Your task to perform on an android device: Open Wikipedia Image 0: 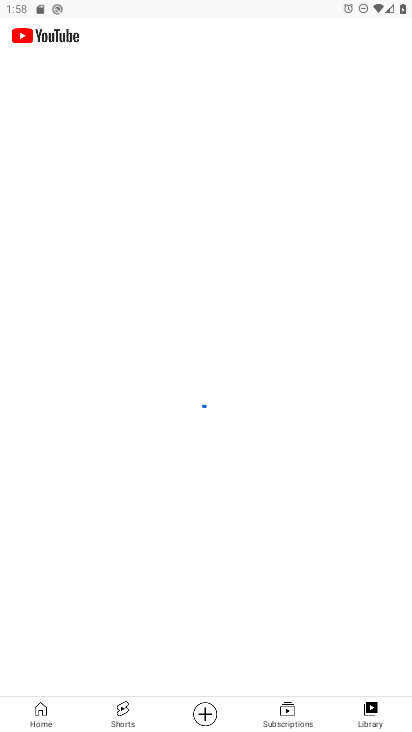
Step 0: click (309, 252)
Your task to perform on an android device: Open Wikipedia Image 1: 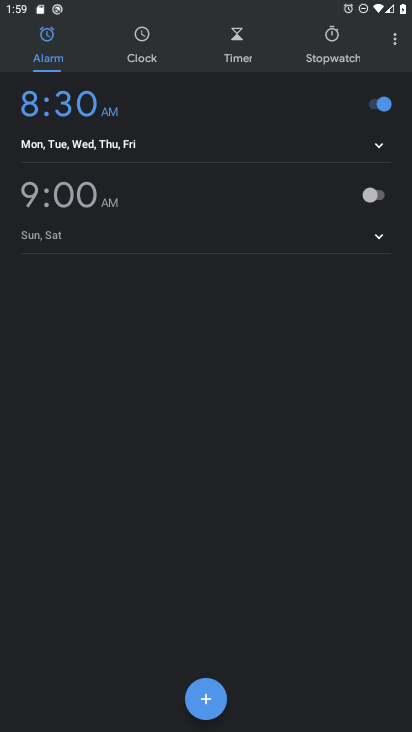
Step 1: press home button
Your task to perform on an android device: Open Wikipedia Image 2: 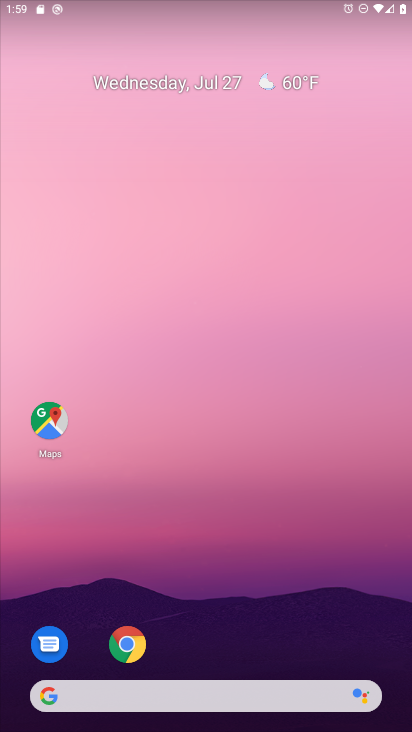
Step 2: drag from (203, 650) to (224, 236)
Your task to perform on an android device: Open Wikipedia Image 3: 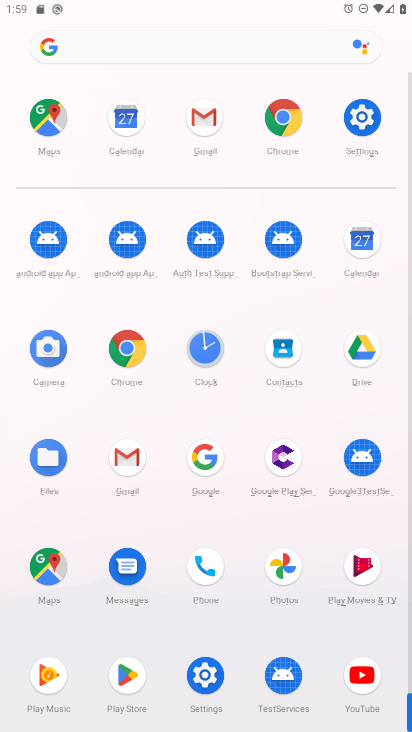
Step 3: click (174, 44)
Your task to perform on an android device: Open Wikipedia Image 4: 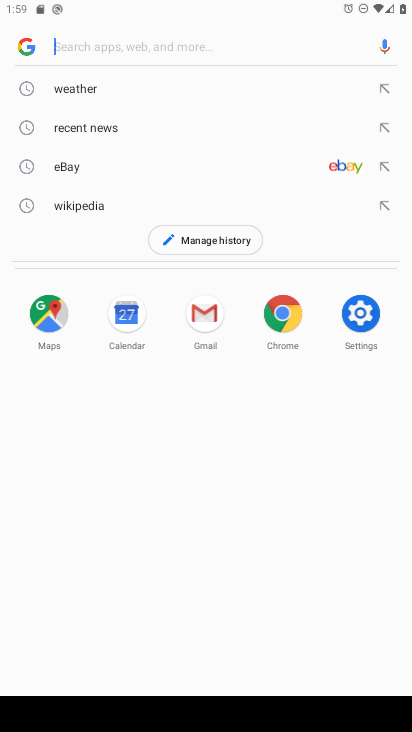
Step 4: click (80, 214)
Your task to perform on an android device: Open Wikipedia Image 5: 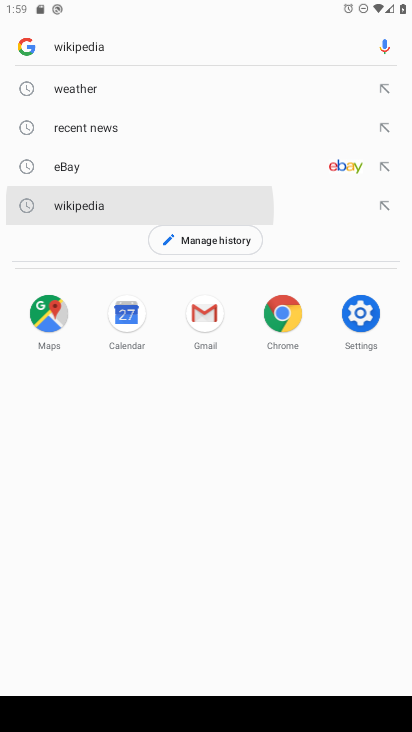
Step 5: click (78, 213)
Your task to perform on an android device: Open Wikipedia Image 6: 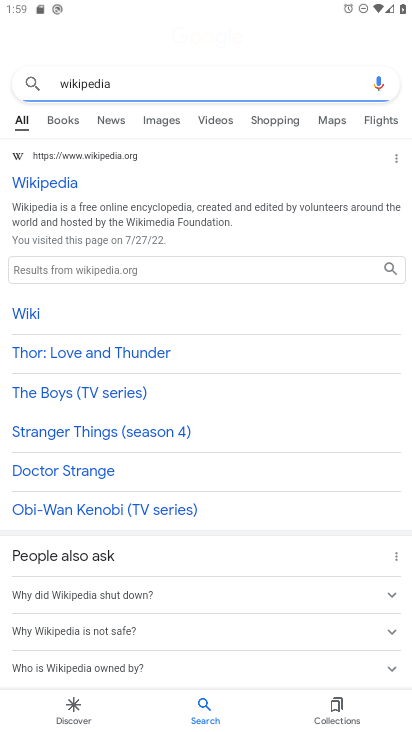
Step 6: drag from (163, 479) to (209, 263)
Your task to perform on an android device: Open Wikipedia Image 7: 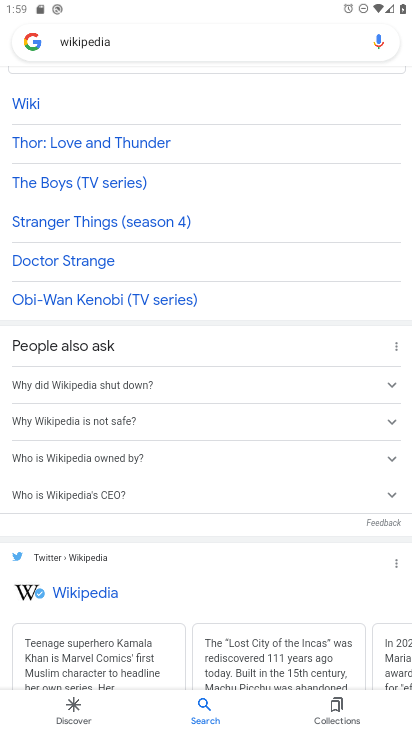
Step 7: drag from (307, 132) to (256, 581)
Your task to perform on an android device: Open Wikipedia Image 8: 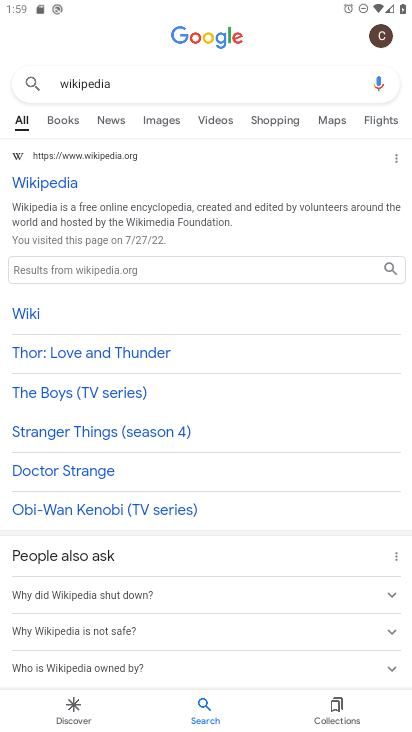
Step 8: click (30, 175)
Your task to perform on an android device: Open Wikipedia Image 9: 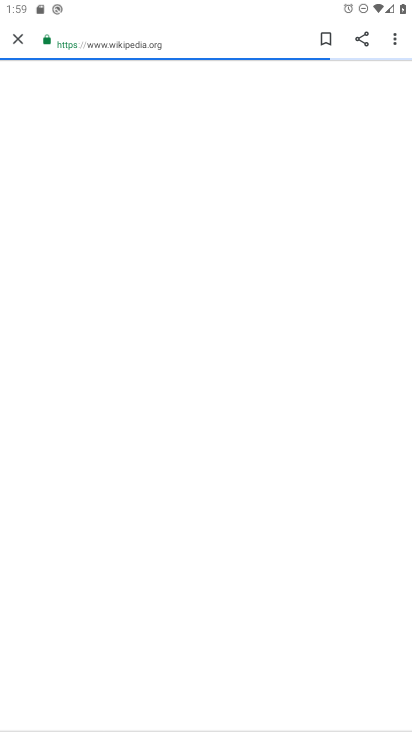
Step 9: task complete